Your task to perform on an android device: check data usage Image 0: 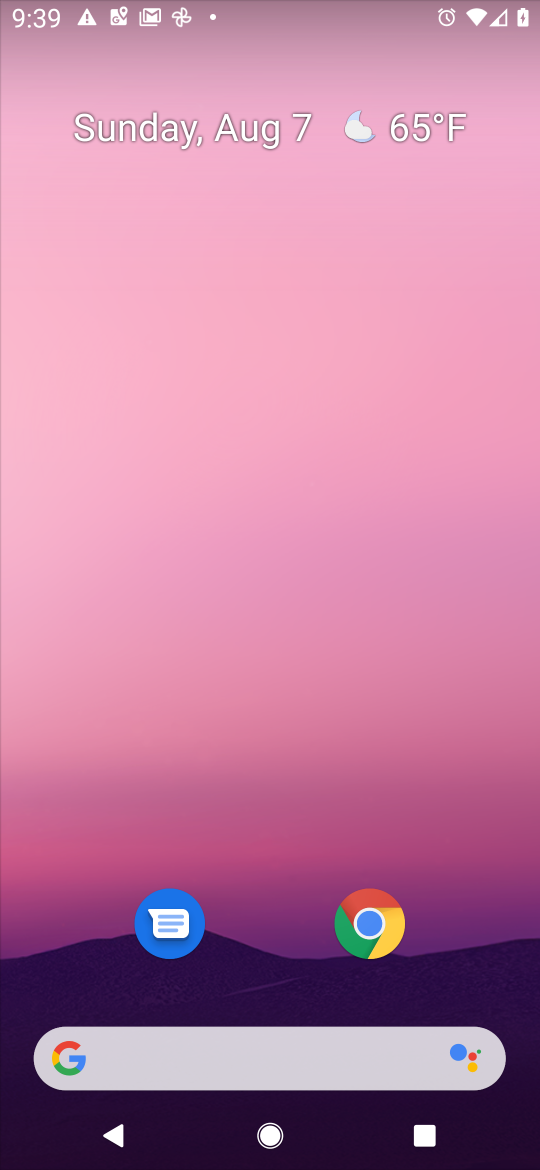
Step 0: drag from (495, 966) to (197, 3)
Your task to perform on an android device: check data usage Image 1: 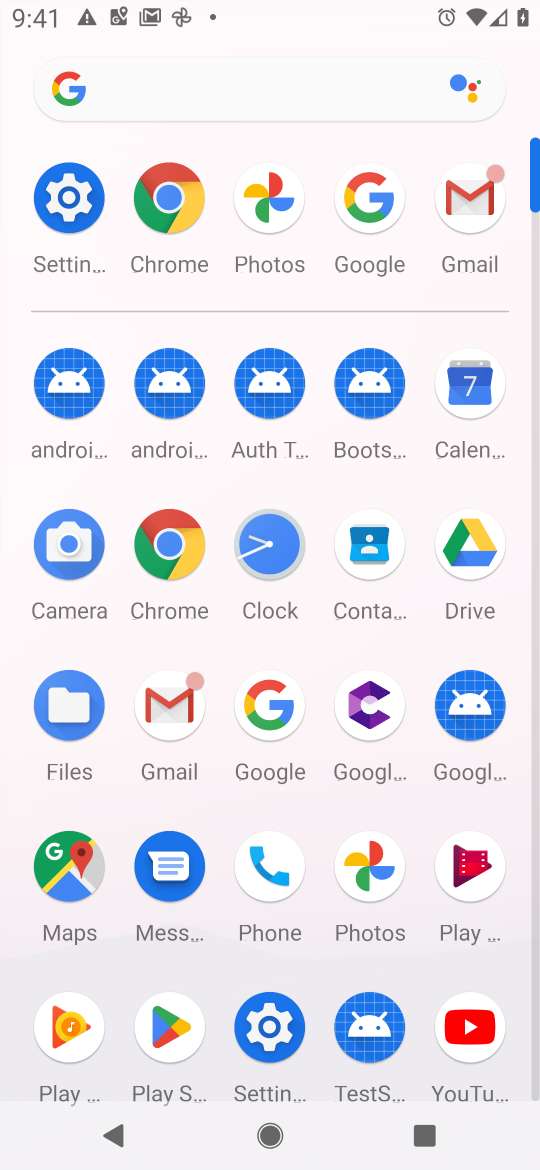
Step 1: click (279, 1036)
Your task to perform on an android device: check data usage Image 2: 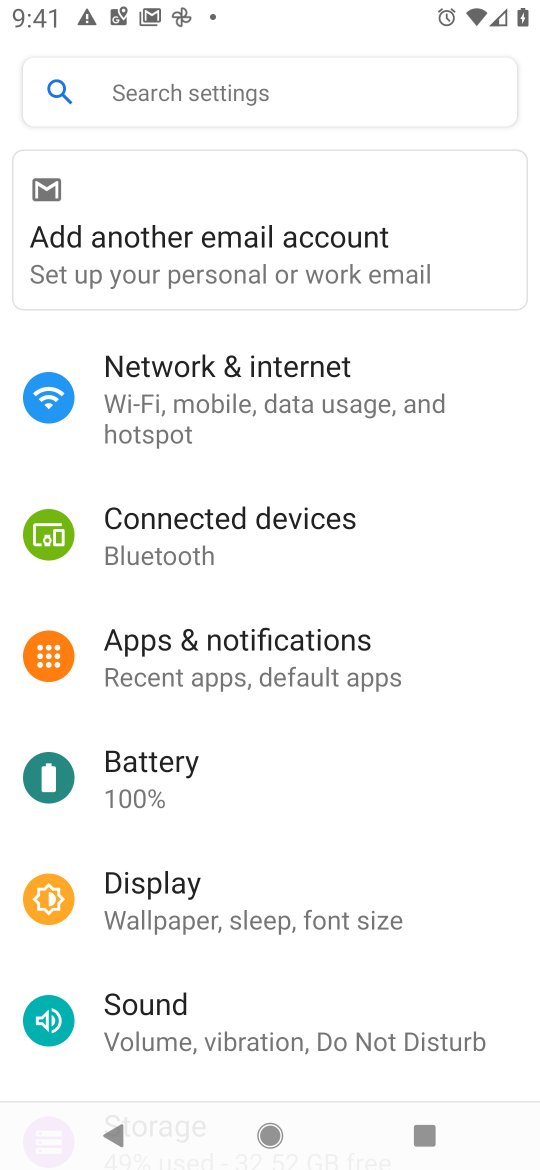
Step 2: click (244, 398)
Your task to perform on an android device: check data usage Image 3: 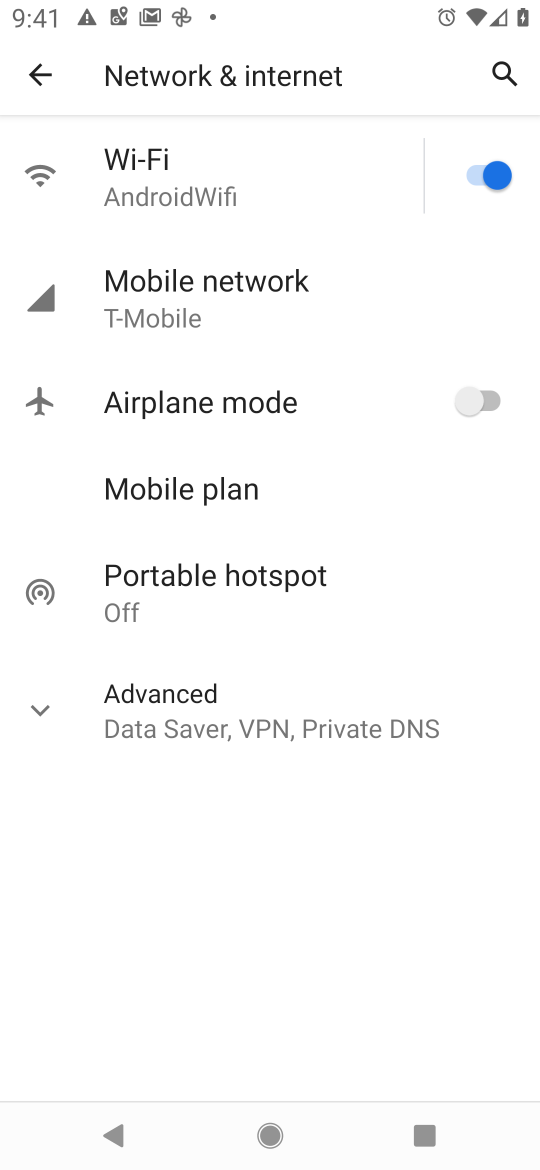
Step 3: click (153, 327)
Your task to perform on an android device: check data usage Image 4: 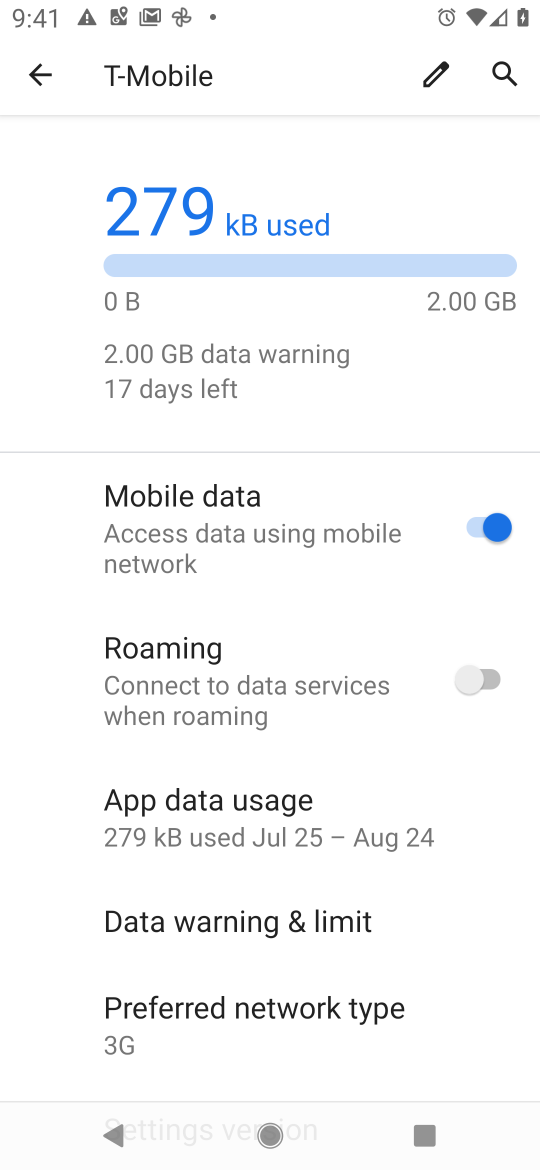
Step 4: click (169, 822)
Your task to perform on an android device: check data usage Image 5: 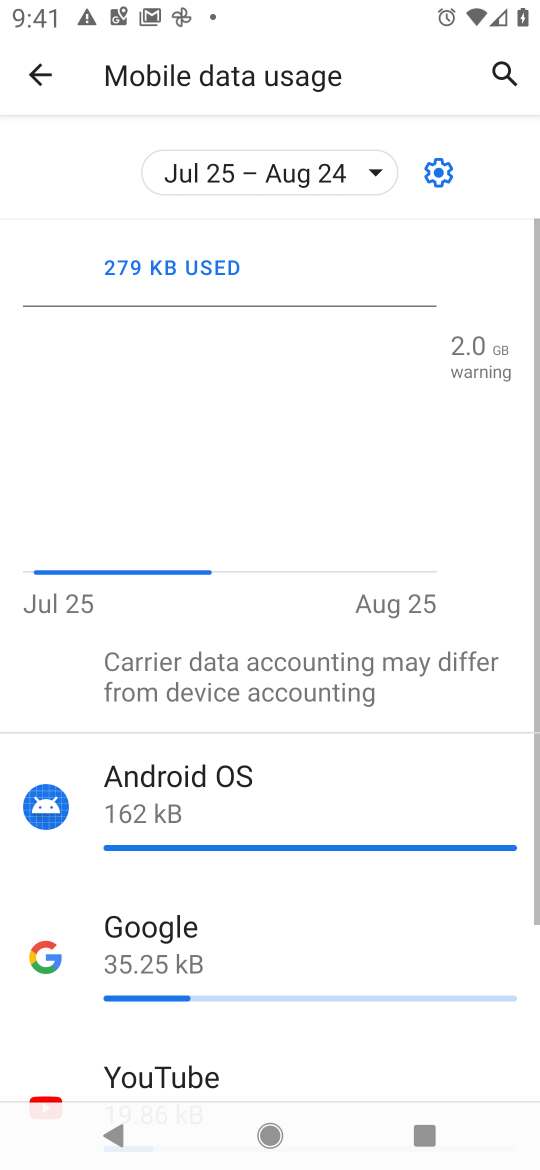
Step 5: task complete